Your task to perform on an android device: Search for seafood restaurants on Google Maps Image 0: 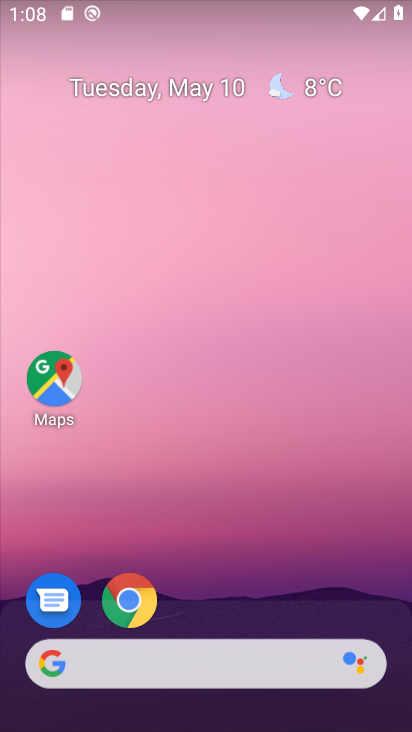
Step 0: click (41, 378)
Your task to perform on an android device: Search for seafood restaurants on Google Maps Image 1: 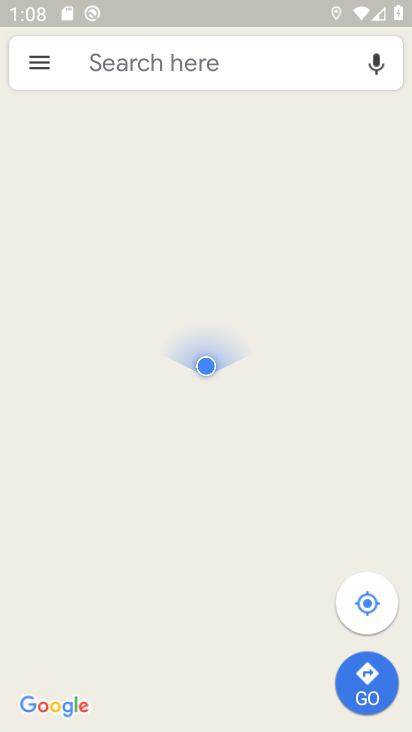
Step 1: click (235, 72)
Your task to perform on an android device: Search for seafood restaurants on Google Maps Image 2: 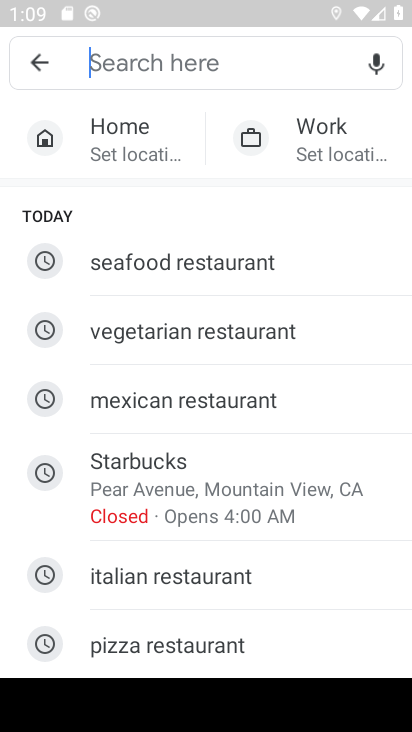
Step 2: type "seafood restaurants"
Your task to perform on an android device: Search for seafood restaurants on Google Maps Image 3: 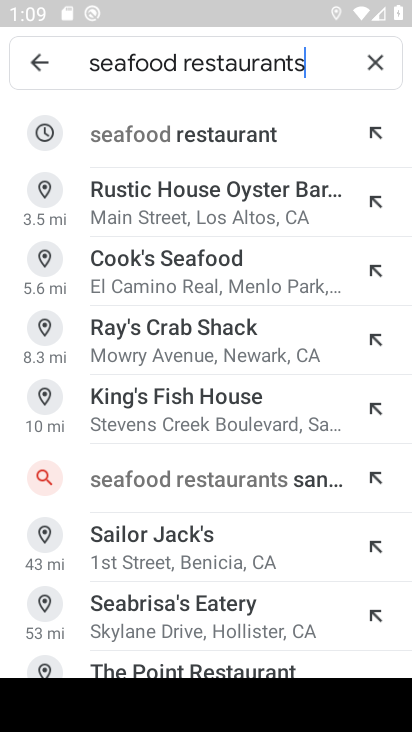
Step 3: click (251, 129)
Your task to perform on an android device: Search for seafood restaurants on Google Maps Image 4: 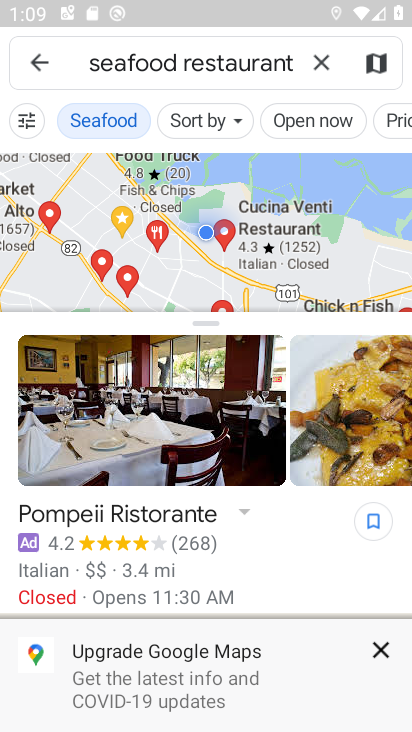
Step 4: click (383, 654)
Your task to perform on an android device: Search for seafood restaurants on Google Maps Image 5: 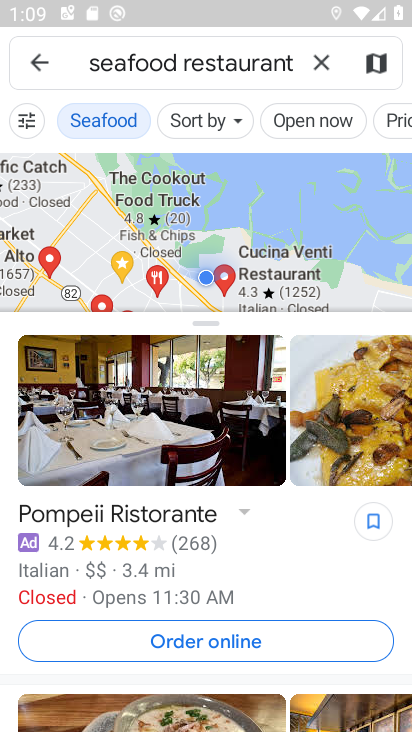
Step 5: task complete